Your task to perform on an android device: Open notification settings Image 0: 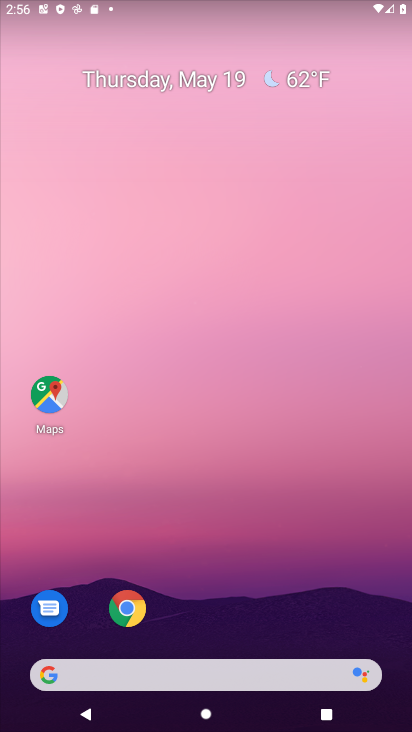
Step 0: drag from (260, 616) to (243, 3)
Your task to perform on an android device: Open notification settings Image 1: 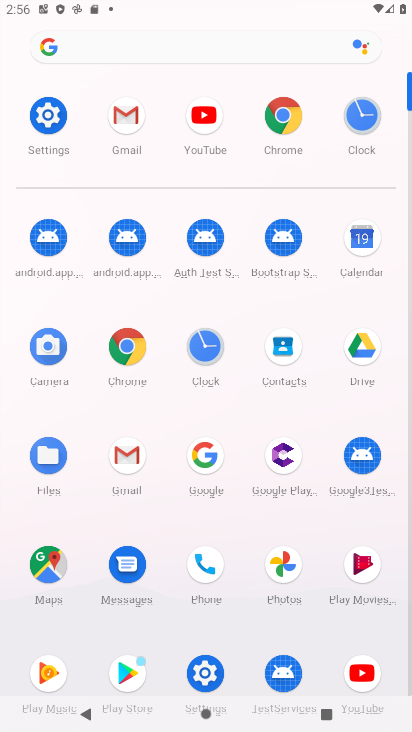
Step 1: click (34, 125)
Your task to perform on an android device: Open notification settings Image 2: 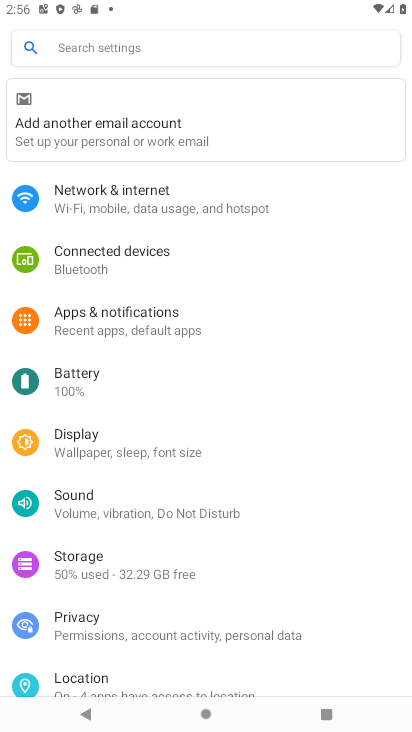
Step 2: click (154, 304)
Your task to perform on an android device: Open notification settings Image 3: 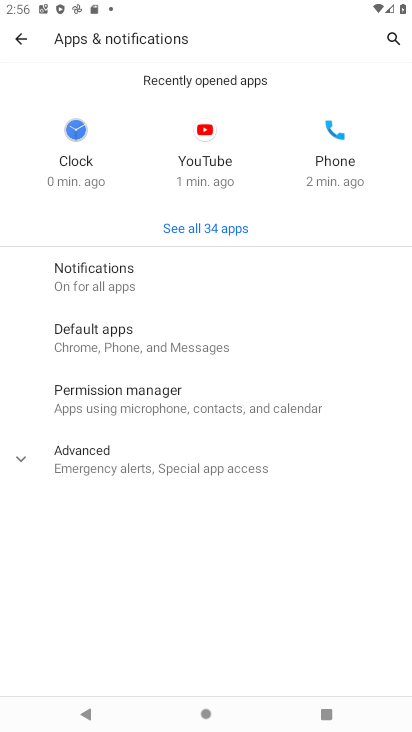
Step 3: click (110, 474)
Your task to perform on an android device: Open notification settings Image 4: 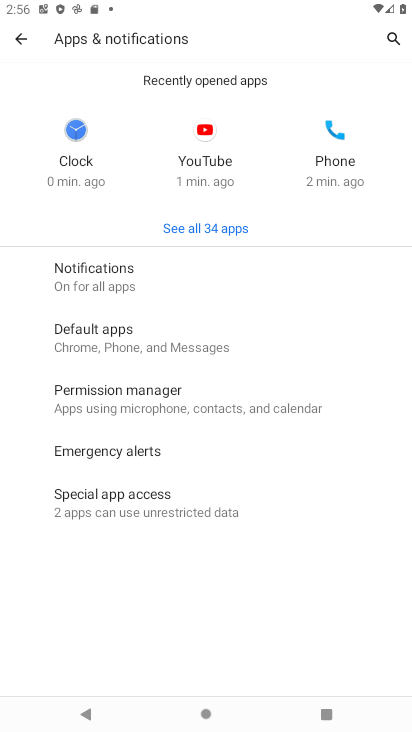
Step 4: task complete